Your task to perform on an android device: Open Yahoo.com Image 0: 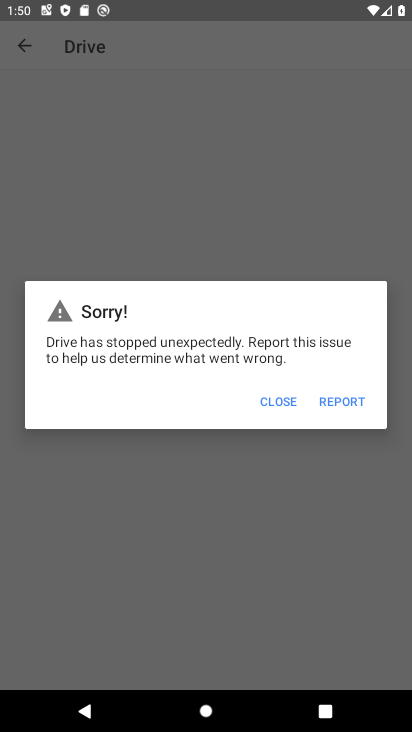
Step 0: press home button
Your task to perform on an android device: Open Yahoo.com Image 1: 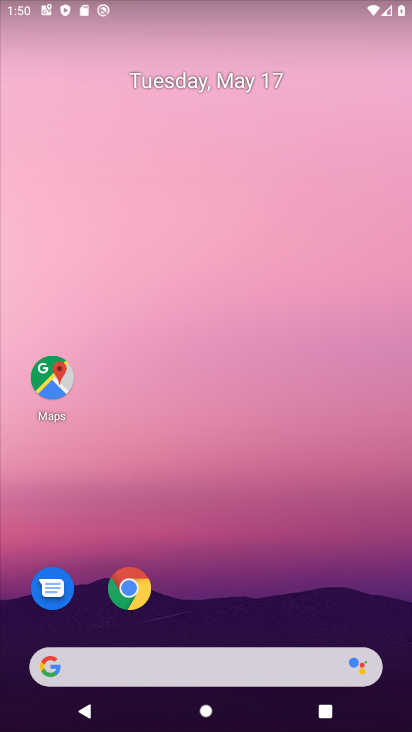
Step 1: click (150, 595)
Your task to perform on an android device: Open Yahoo.com Image 2: 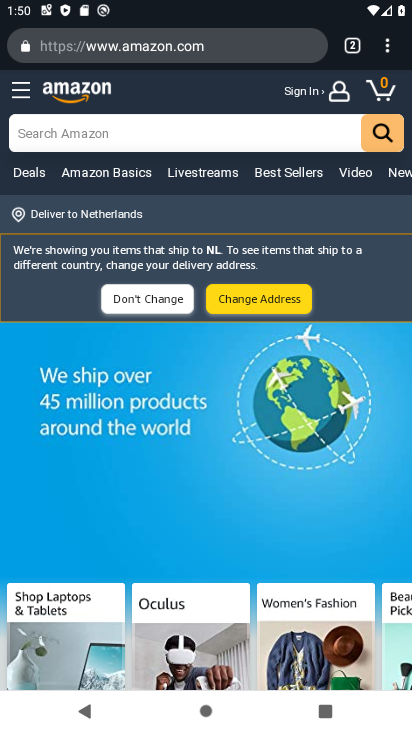
Step 2: click (344, 37)
Your task to perform on an android device: Open Yahoo.com Image 3: 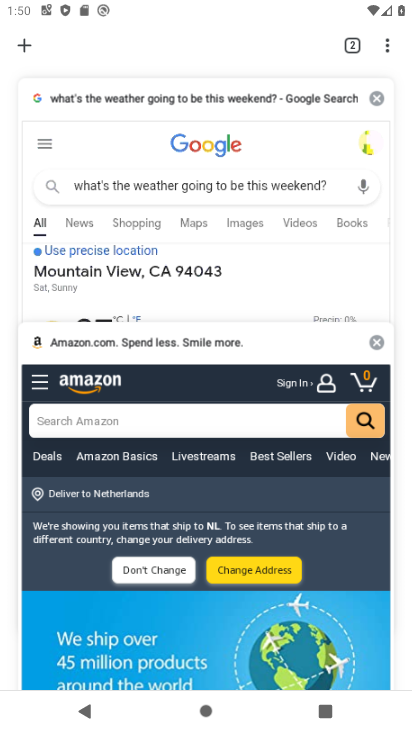
Step 3: click (17, 44)
Your task to perform on an android device: Open Yahoo.com Image 4: 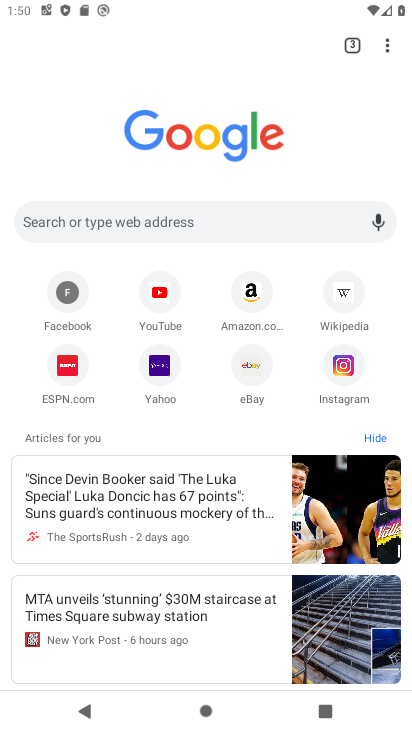
Step 4: click (159, 389)
Your task to perform on an android device: Open Yahoo.com Image 5: 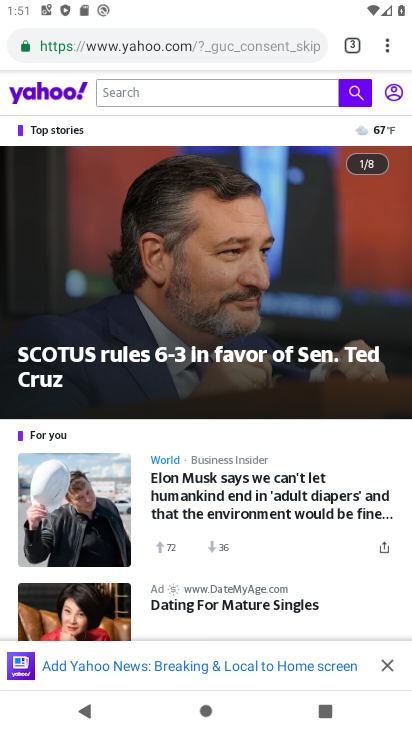
Step 5: task complete